Your task to perform on an android device: move a message to another label in the gmail app Image 0: 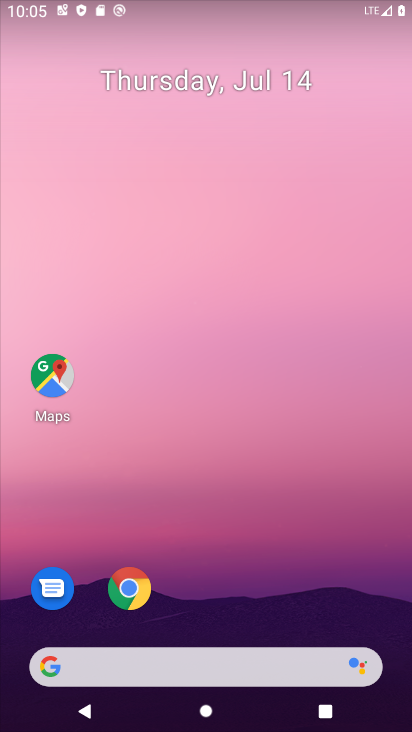
Step 0: drag from (363, 613) to (230, 60)
Your task to perform on an android device: move a message to another label in the gmail app Image 1: 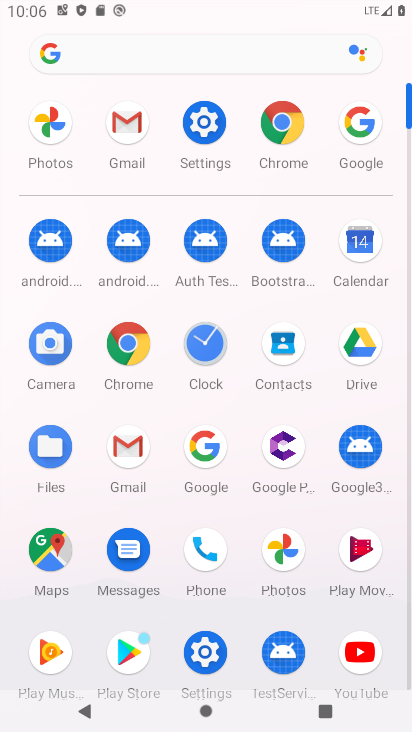
Step 1: click (108, 452)
Your task to perform on an android device: move a message to another label in the gmail app Image 2: 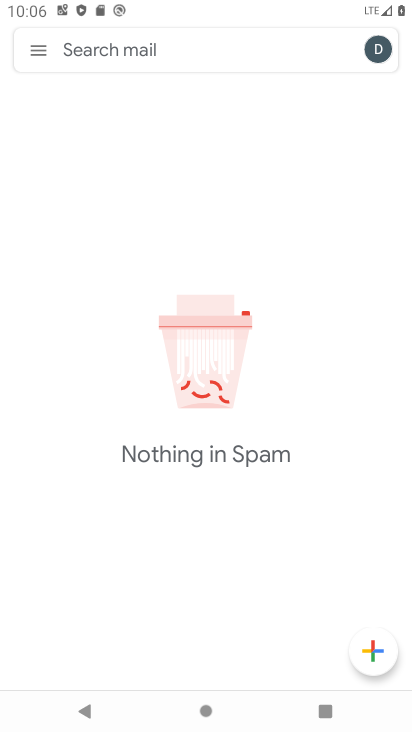
Step 2: task complete